Your task to perform on an android device: Open Android settings Image 0: 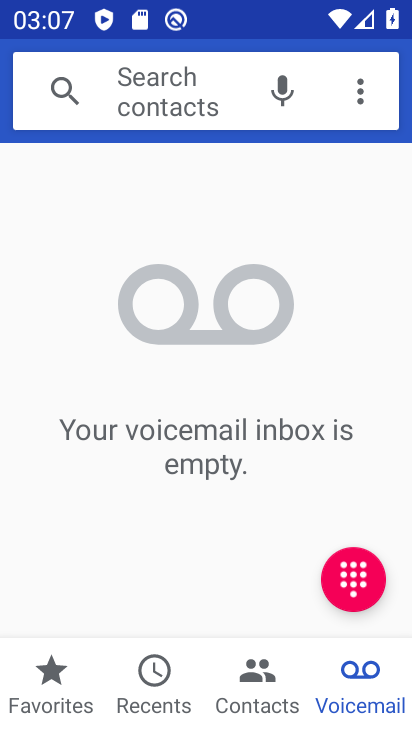
Step 0: press back button
Your task to perform on an android device: Open Android settings Image 1: 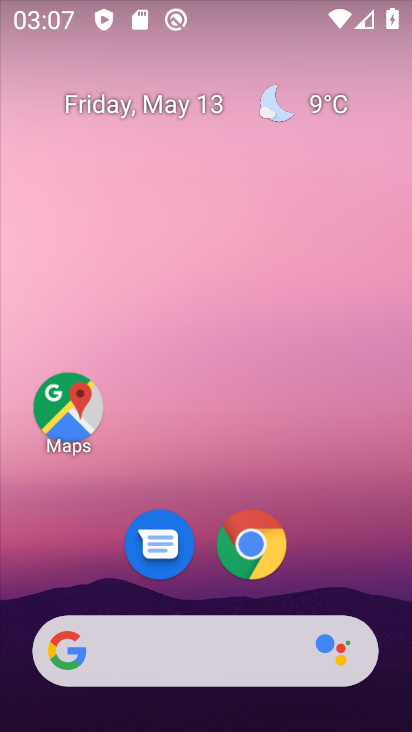
Step 1: drag from (320, 562) to (249, 32)
Your task to perform on an android device: Open Android settings Image 2: 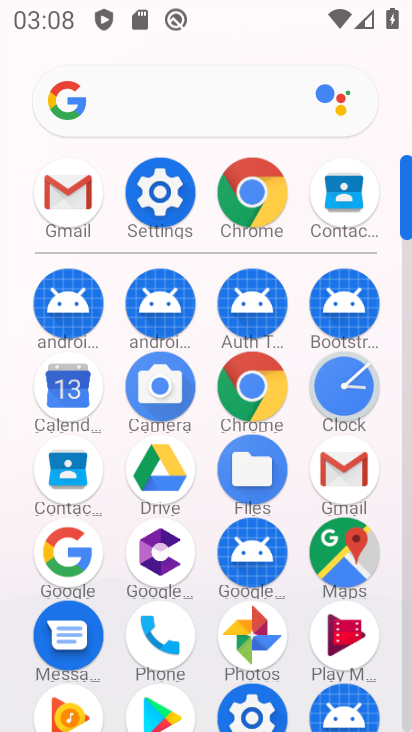
Step 2: click (159, 190)
Your task to perform on an android device: Open Android settings Image 3: 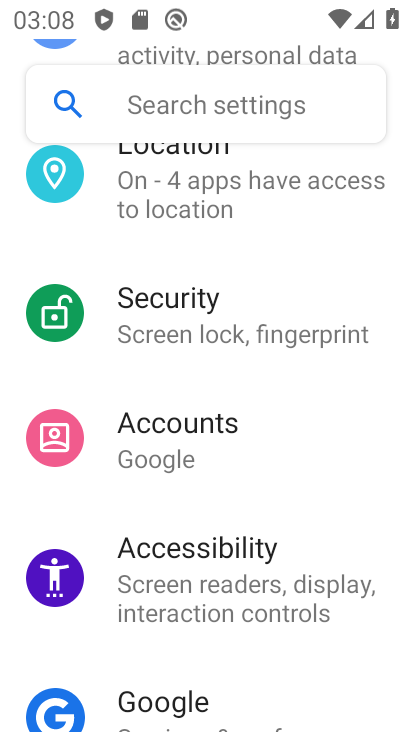
Step 3: drag from (272, 179) to (264, 561)
Your task to perform on an android device: Open Android settings Image 4: 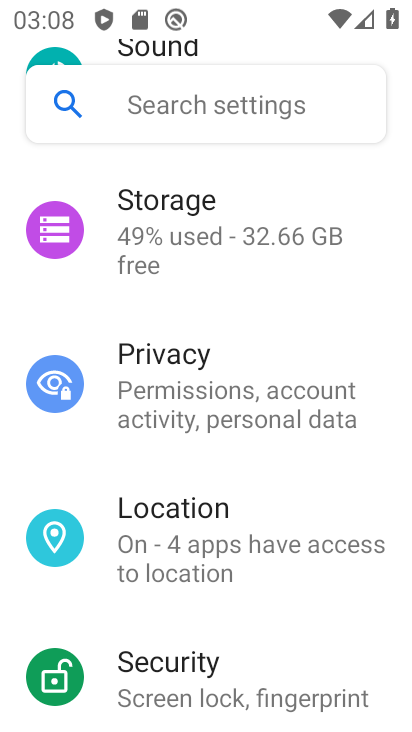
Step 4: click (297, 538)
Your task to perform on an android device: Open Android settings Image 5: 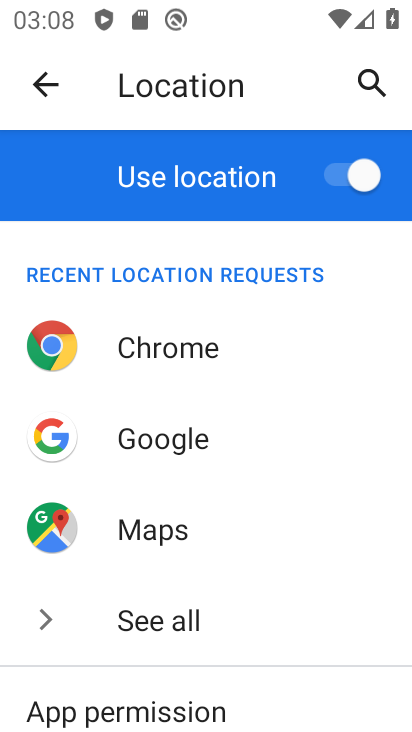
Step 5: drag from (286, 554) to (283, 184)
Your task to perform on an android device: Open Android settings Image 6: 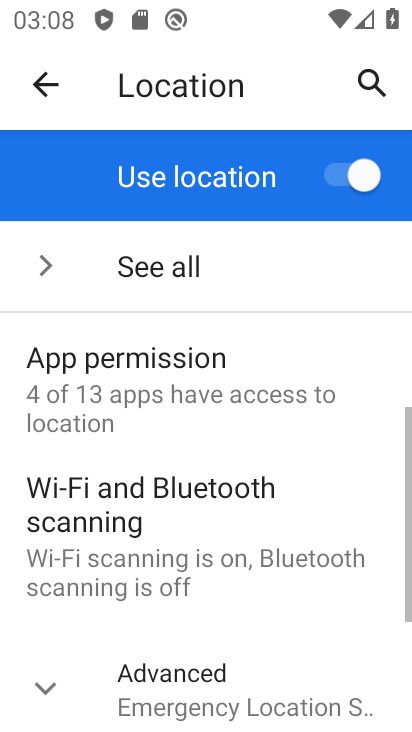
Step 6: drag from (257, 585) to (258, 239)
Your task to perform on an android device: Open Android settings Image 7: 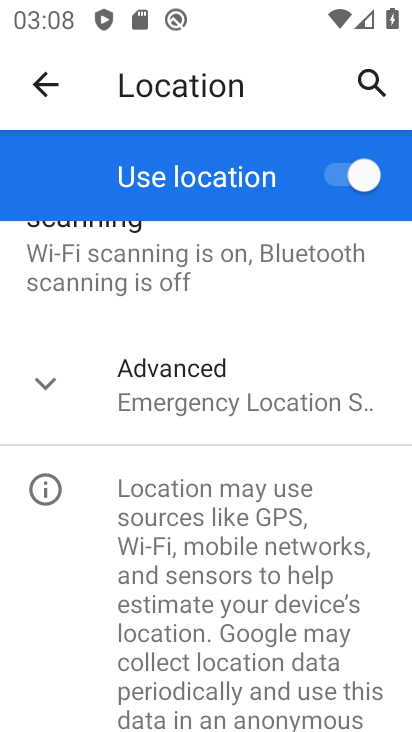
Step 7: click (53, 388)
Your task to perform on an android device: Open Android settings Image 8: 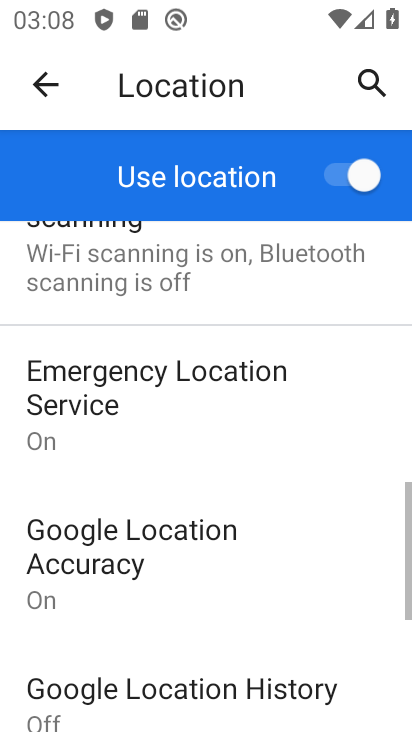
Step 8: task complete